Your task to perform on an android device: change the clock display to digital Image 0: 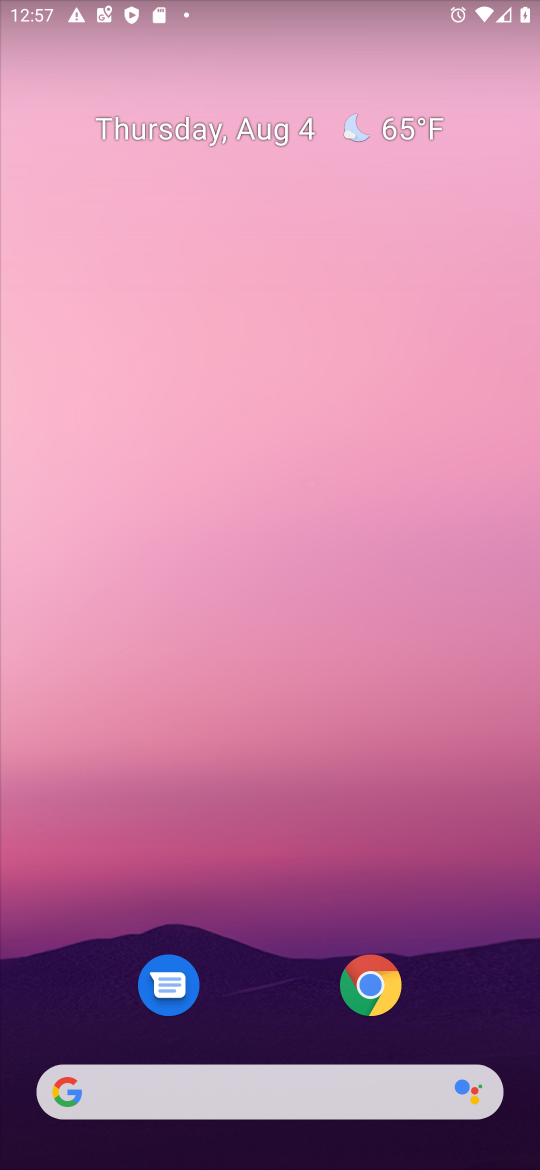
Step 0: drag from (256, 937) to (261, 287)
Your task to perform on an android device: change the clock display to digital Image 1: 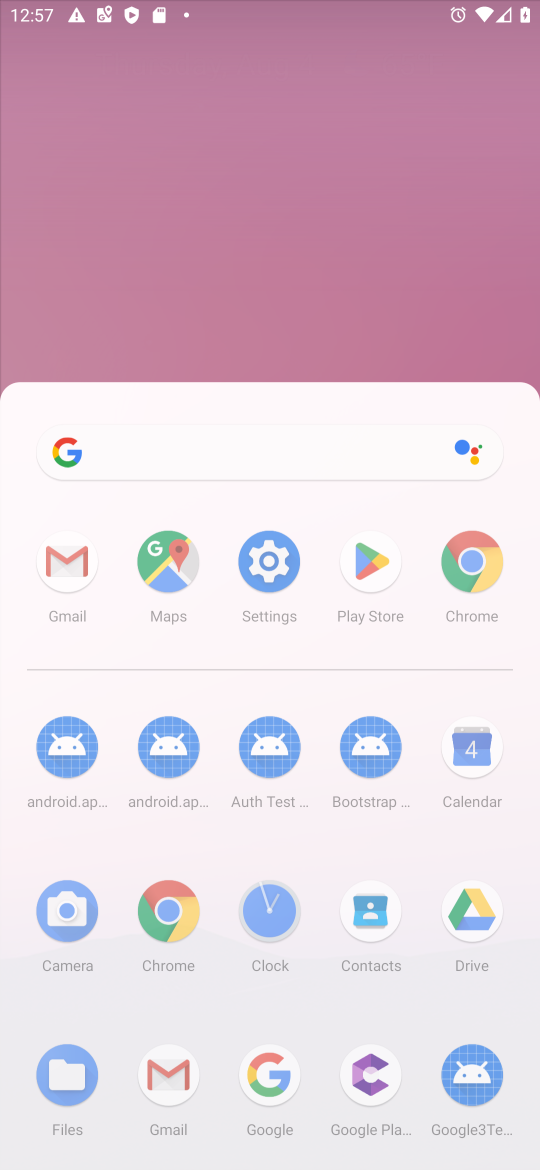
Step 1: click (261, 287)
Your task to perform on an android device: change the clock display to digital Image 2: 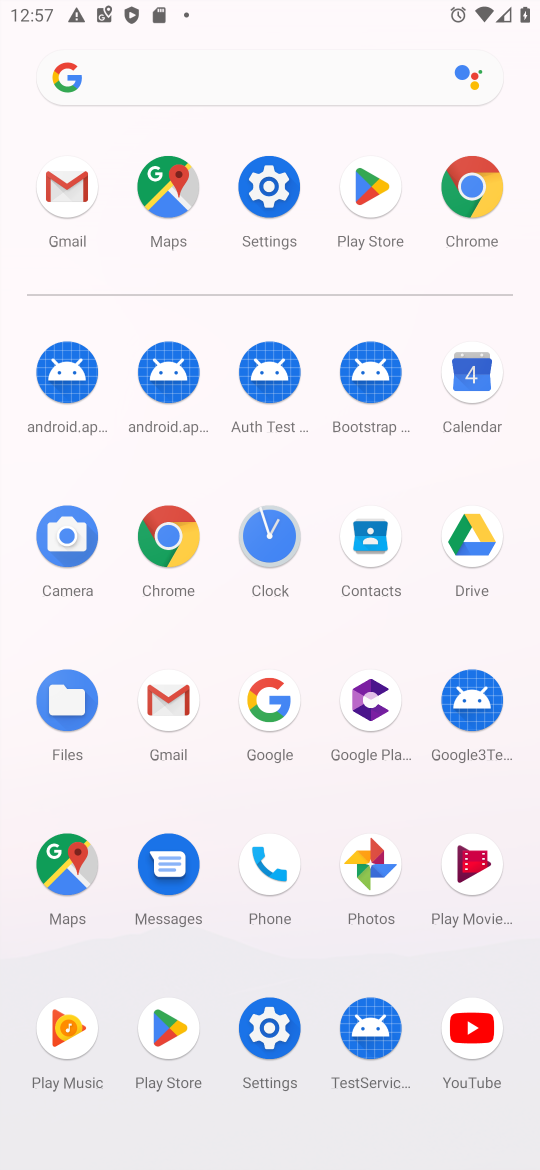
Step 2: click (276, 538)
Your task to perform on an android device: change the clock display to digital Image 3: 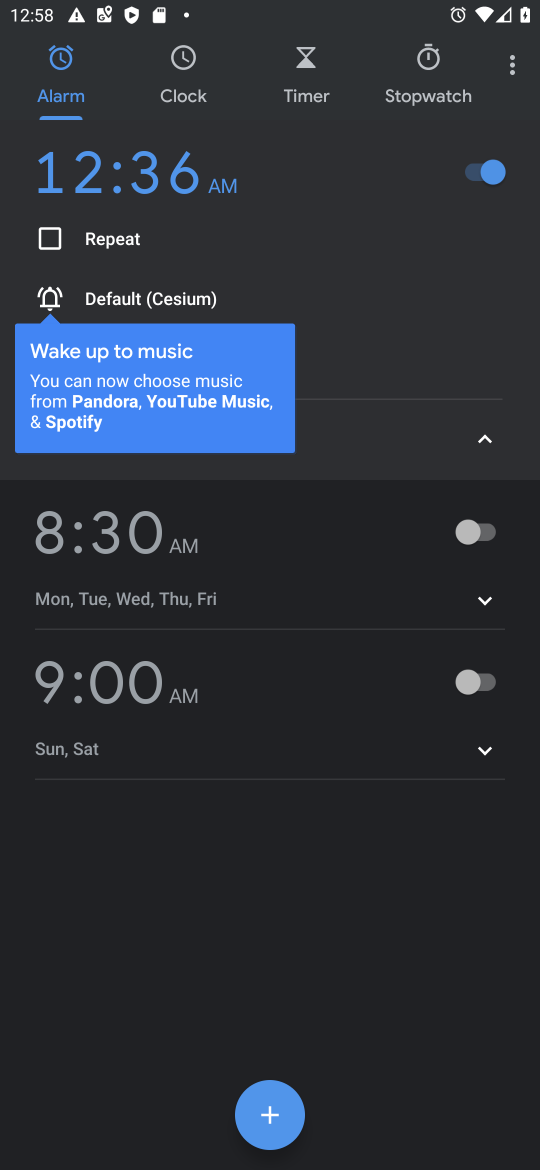
Step 3: click (280, 1119)
Your task to perform on an android device: change the clock display to digital Image 4: 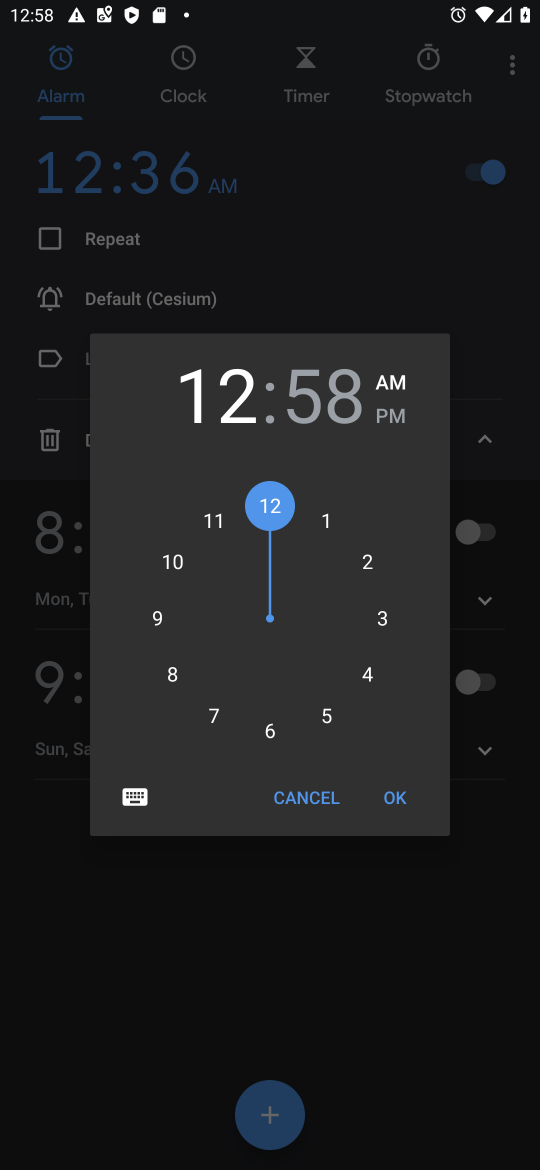
Step 4: click (407, 792)
Your task to perform on an android device: change the clock display to digital Image 5: 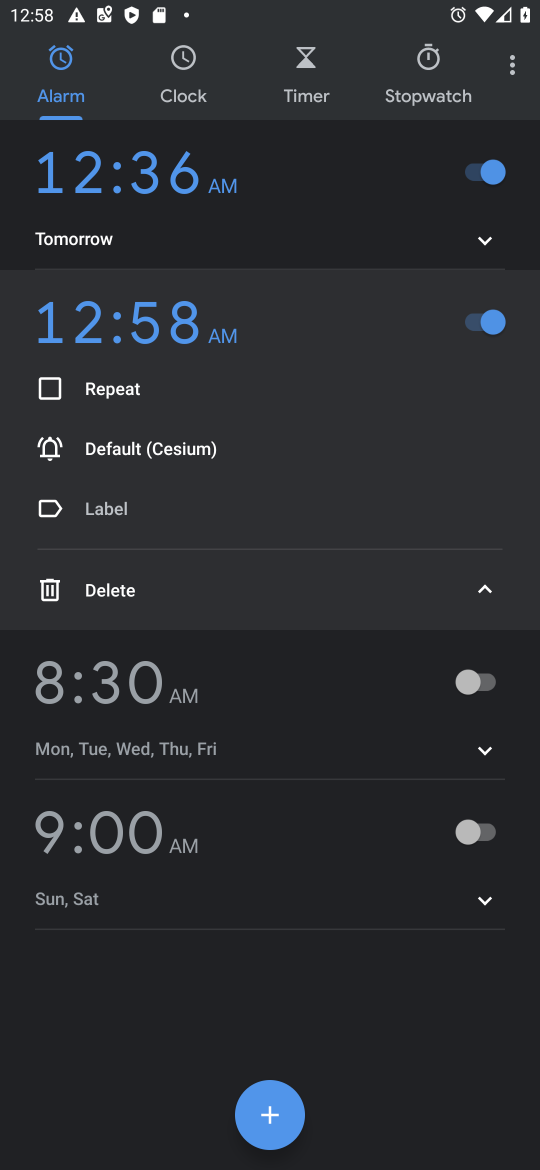
Step 5: task complete